Your task to perform on an android device: turn off notifications in google photos Image 0: 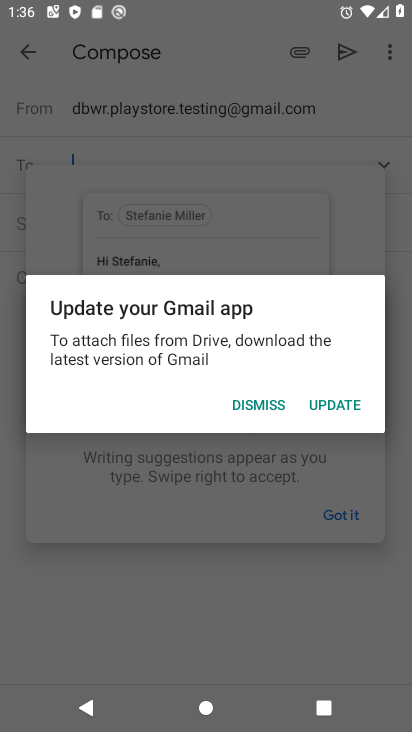
Step 0: press home button
Your task to perform on an android device: turn off notifications in google photos Image 1: 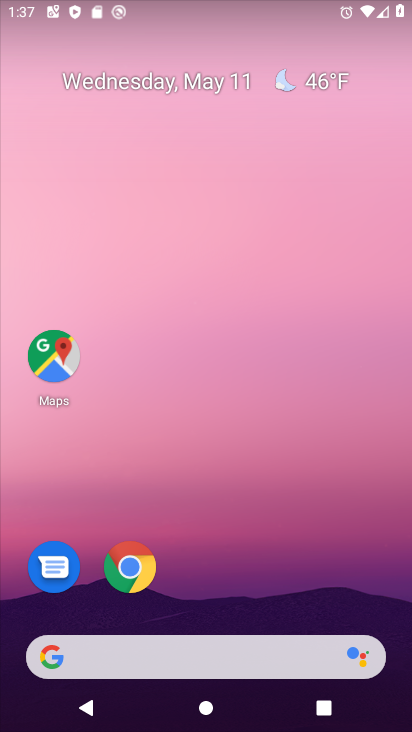
Step 1: drag from (235, 641) to (192, 1)
Your task to perform on an android device: turn off notifications in google photos Image 2: 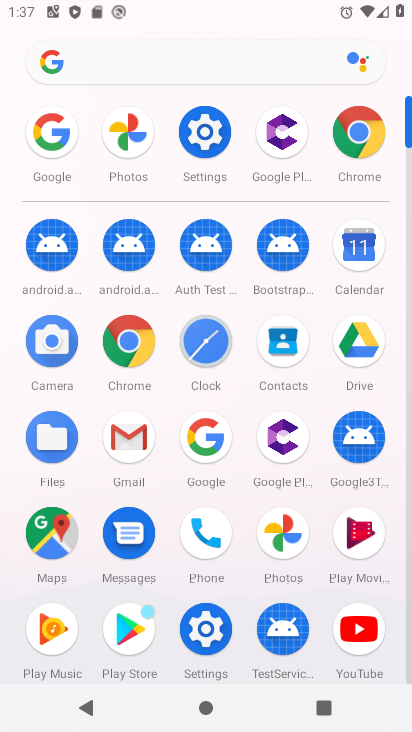
Step 2: click (285, 529)
Your task to perform on an android device: turn off notifications in google photos Image 3: 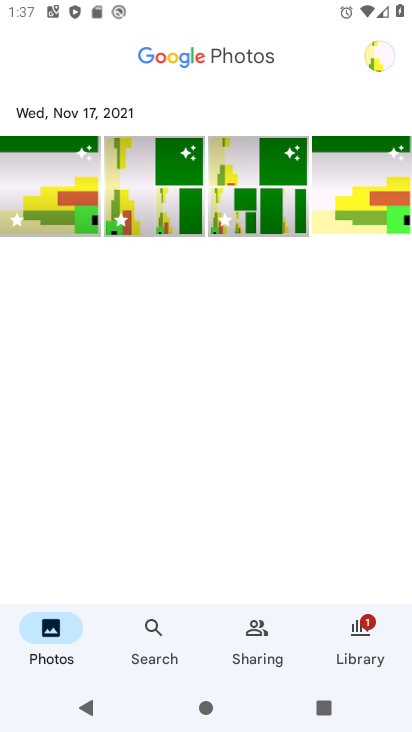
Step 3: click (367, 48)
Your task to perform on an android device: turn off notifications in google photos Image 4: 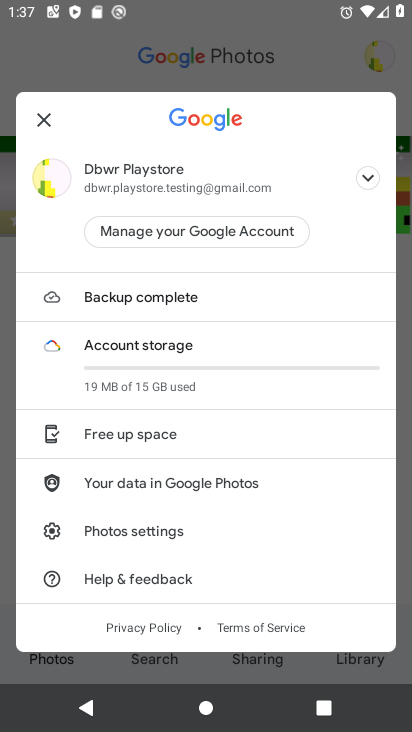
Step 4: click (132, 540)
Your task to perform on an android device: turn off notifications in google photos Image 5: 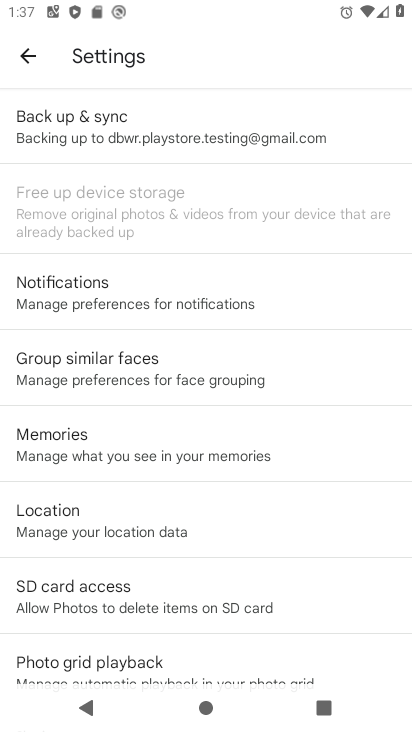
Step 5: click (83, 297)
Your task to perform on an android device: turn off notifications in google photos Image 6: 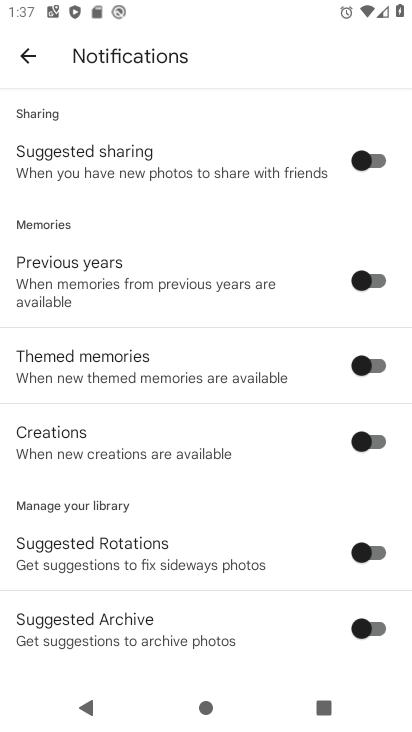
Step 6: drag from (191, 449) to (129, 24)
Your task to perform on an android device: turn off notifications in google photos Image 7: 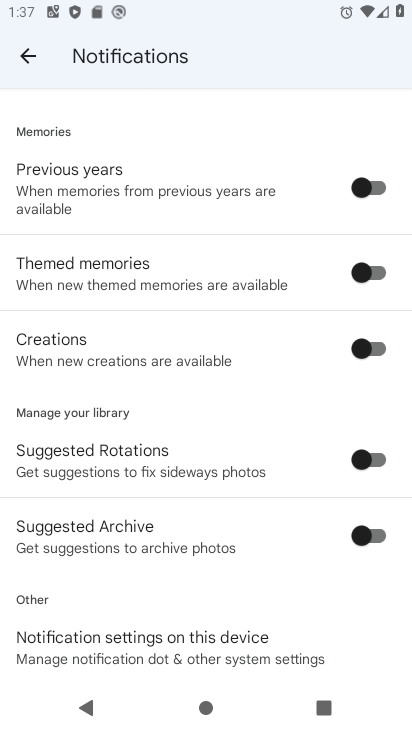
Step 7: click (164, 648)
Your task to perform on an android device: turn off notifications in google photos Image 8: 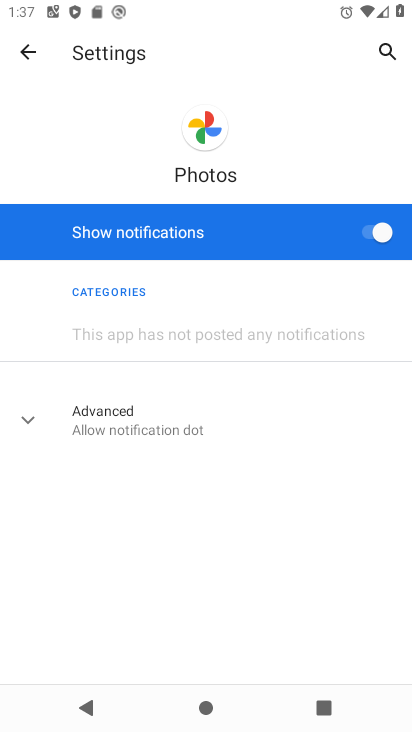
Step 8: click (382, 238)
Your task to perform on an android device: turn off notifications in google photos Image 9: 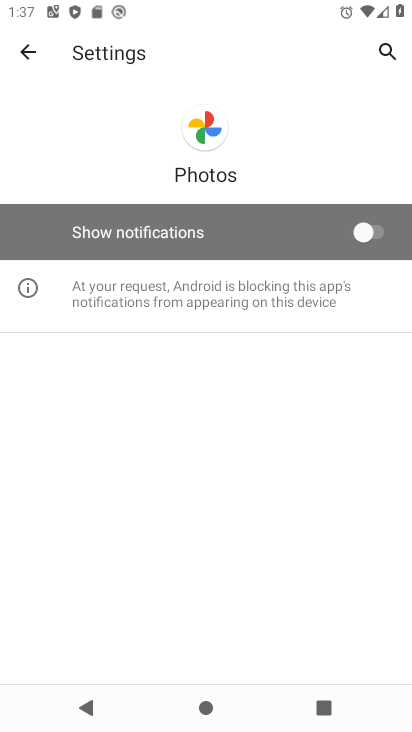
Step 9: task complete